Your task to perform on an android device: Open eBay Image 0: 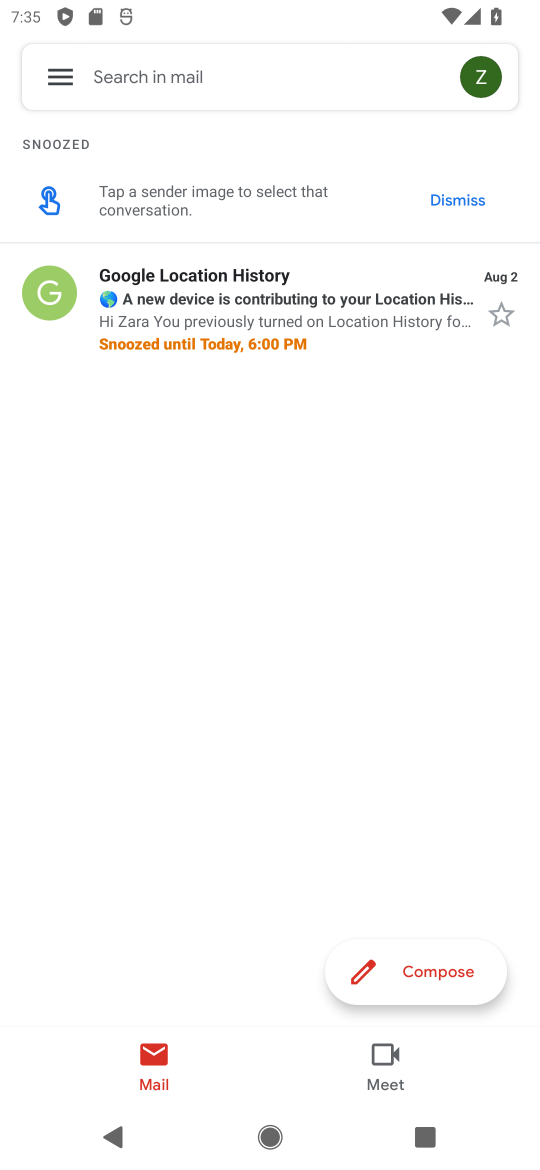
Step 0: press home button
Your task to perform on an android device: Open eBay Image 1: 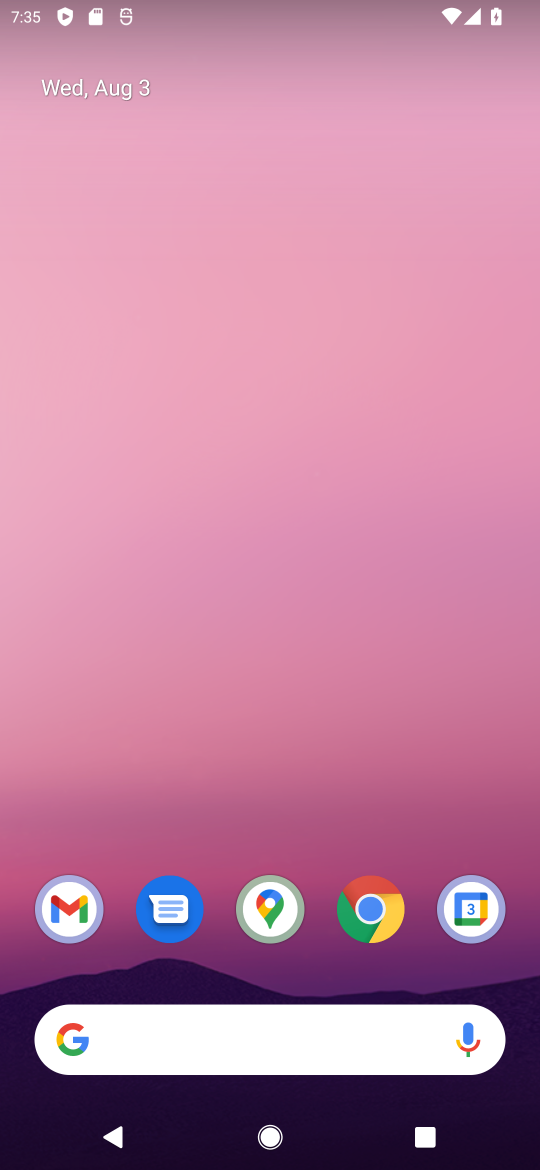
Step 1: drag from (337, 811) to (329, 97)
Your task to perform on an android device: Open eBay Image 2: 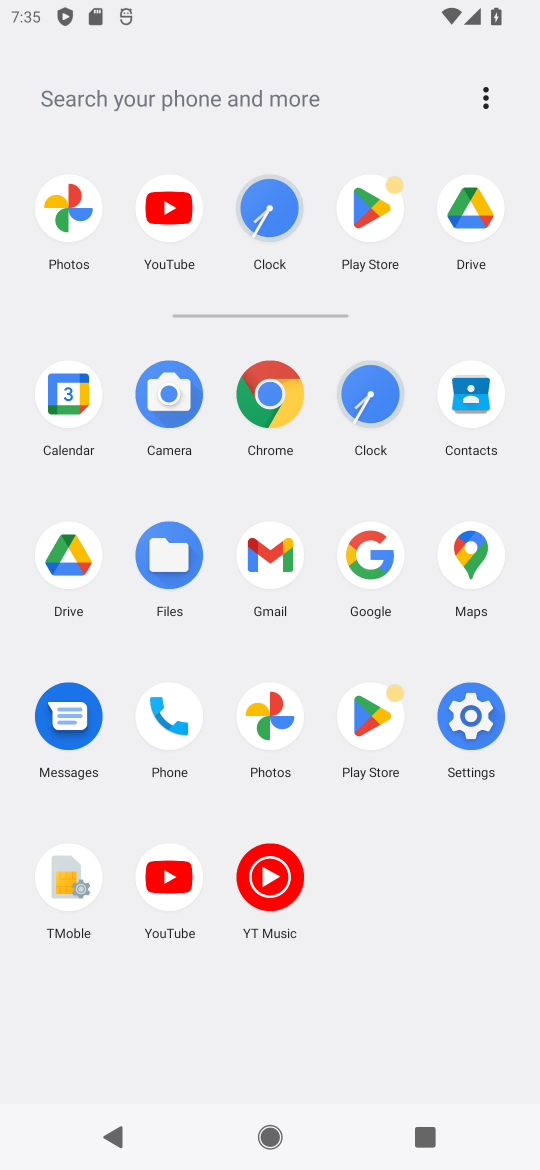
Step 2: click (279, 407)
Your task to perform on an android device: Open eBay Image 3: 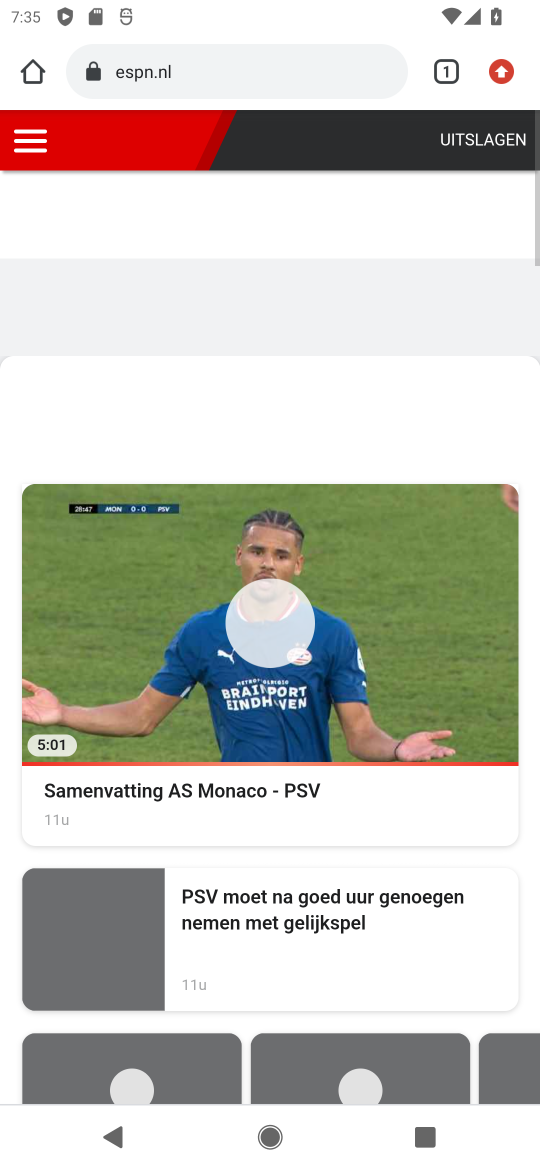
Step 3: click (288, 72)
Your task to perform on an android device: Open eBay Image 4: 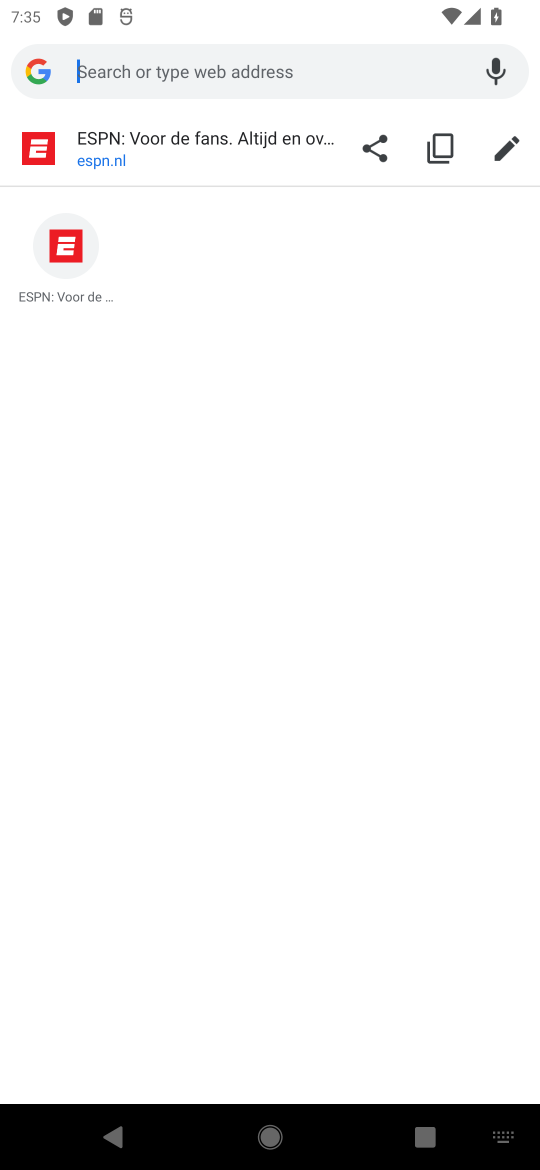
Step 4: type "ebay"
Your task to perform on an android device: Open eBay Image 5: 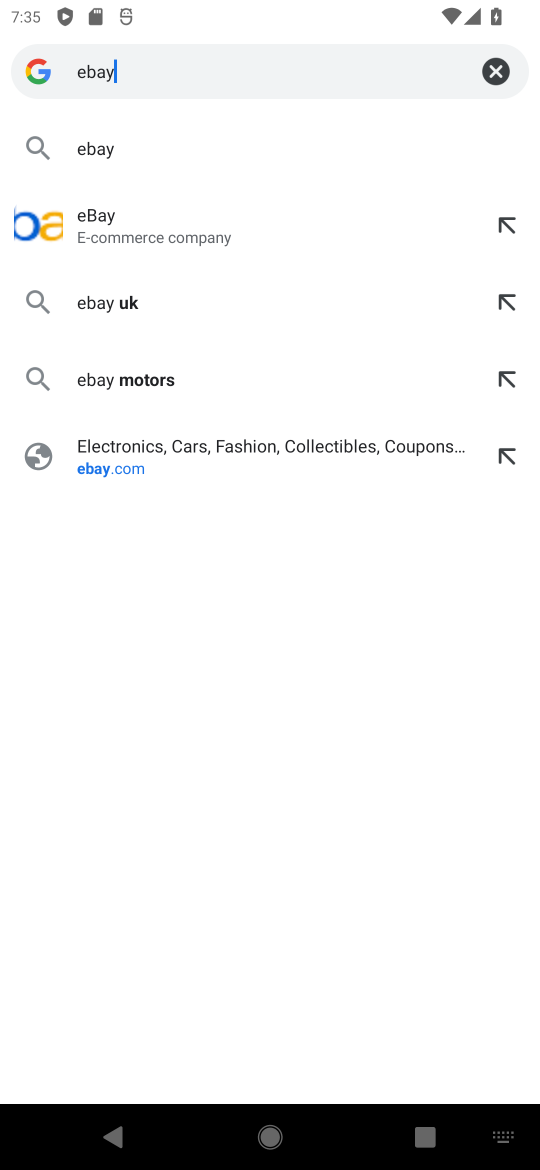
Step 5: click (196, 224)
Your task to perform on an android device: Open eBay Image 6: 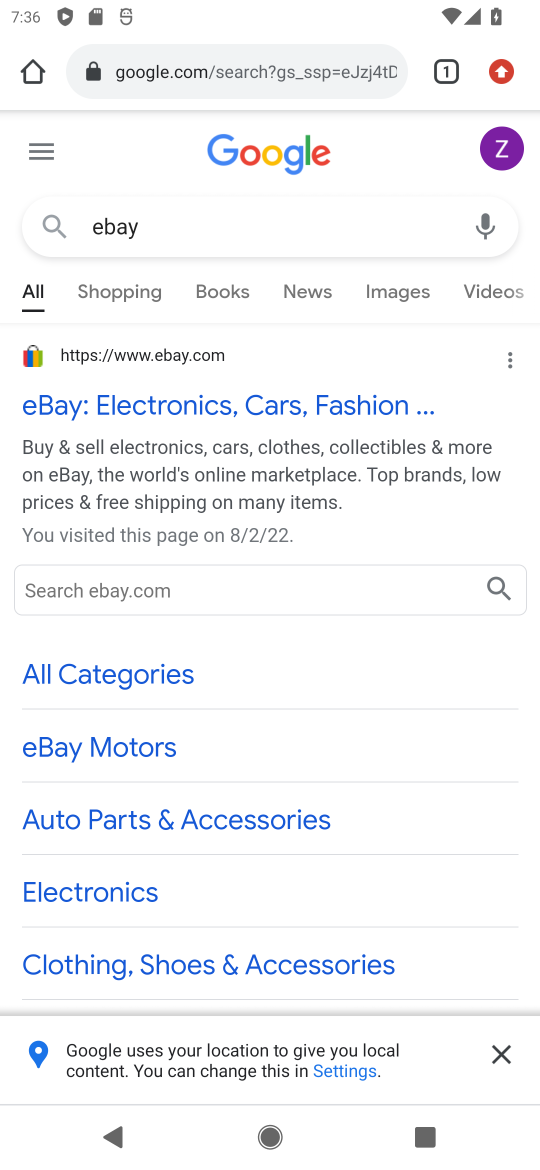
Step 6: task complete